Your task to perform on an android device: turn on notifications settings in the gmail app Image 0: 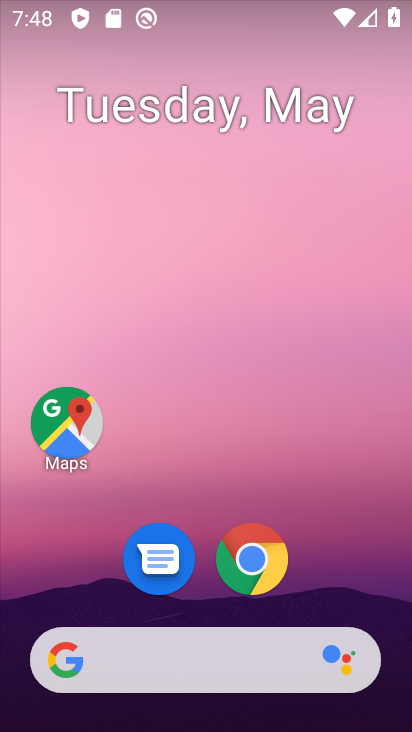
Step 0: drag from (381, 604) to (389, 157)
Your task to perform on an android device: turn on notifications settings in the gmail app Image 1: 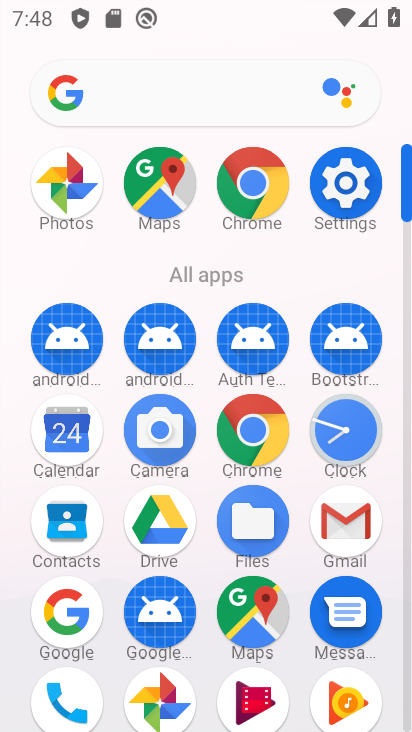
Step 1: click (361, 556)
Your task to perform on an android device: turn on notifications settings in the gmail app Image 2: 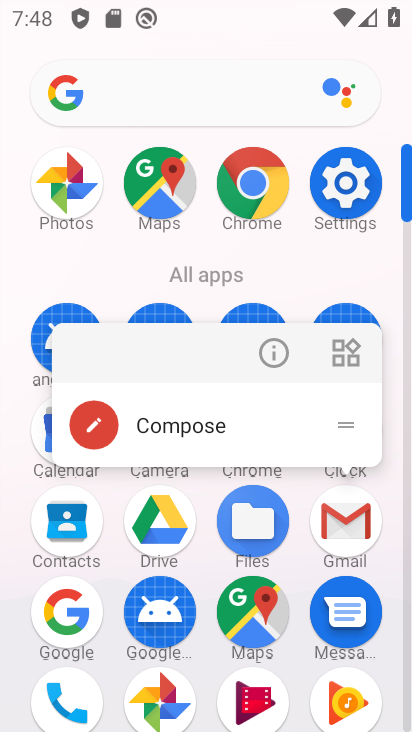
Step 2: click (361, 556)
Your task to perform on an android device: turn on notifications settings in the gmail app Image 3: 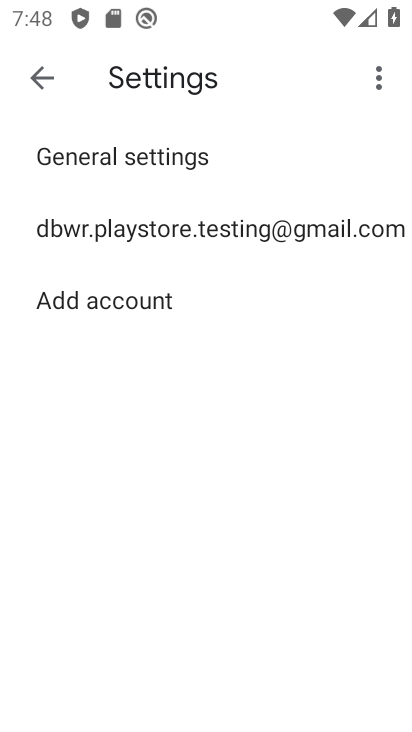
Step 3: click (222, 235)
Your task to perform on an android device: turn on notifications settings in the gmail app Image 4: 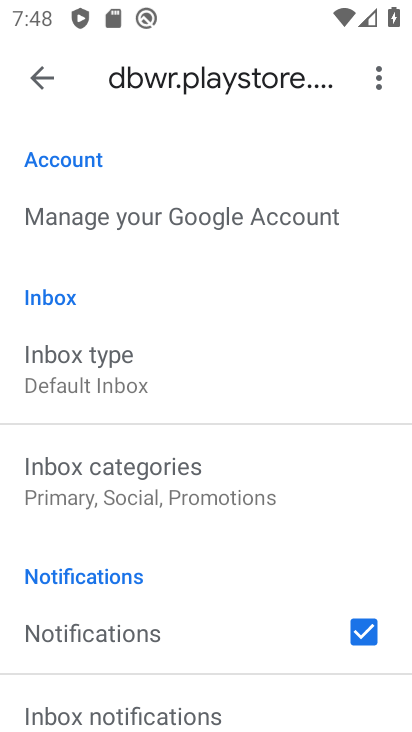
Step 4: drag from (295, 467) to (312, 395)
Your task to perform on an android device: turn on notifications settings in the gmail app Image 5: 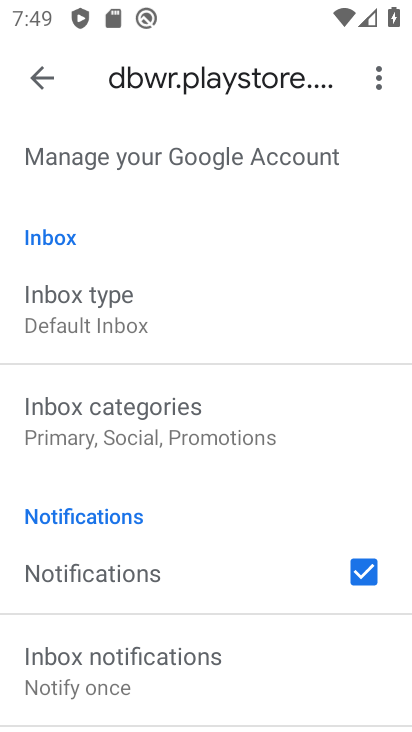
Step 5: drag from (298, 506) to (288, 380)
Your task to perform on an android device: turn on notifications settings in the gmail app Image 6: 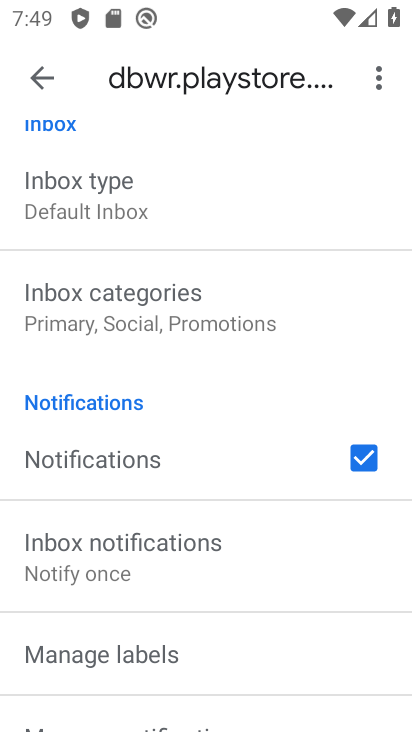
Step 6: drag from (306, 587) to (304, 468)
Your task to perform on an android device: turn on notifications settings in the gmail app Image 7: 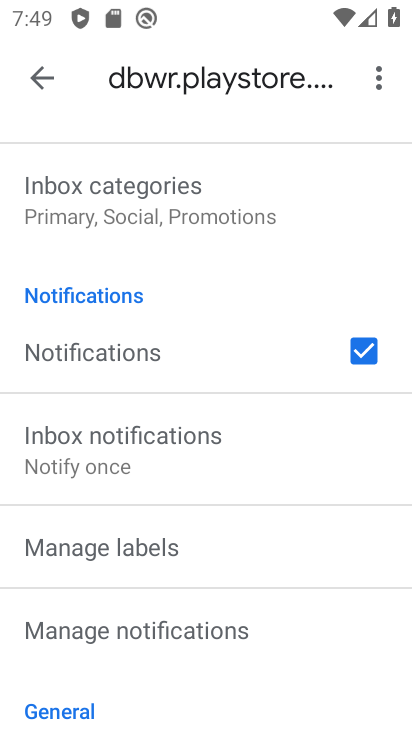
Step 7: drag from (338, 614) to (347, 511)
Your task to perform on an android device: turn on notifications settings in the gmail app Image 8: 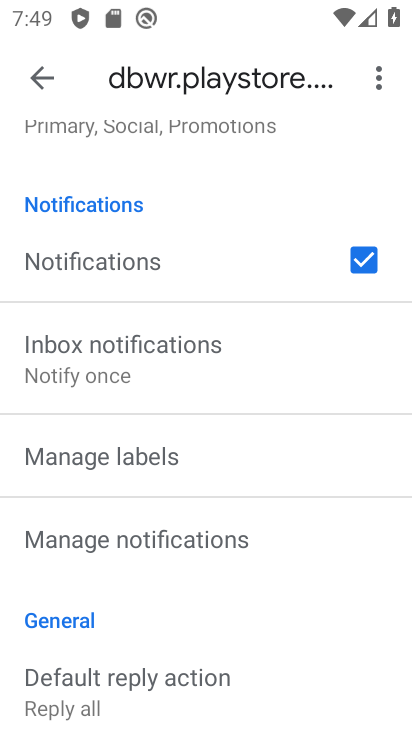
Step 8: drag from (359, 629) to (366, 535)
Your task to perform on an android device: turn on notifications settings in the gmail app Image 9: 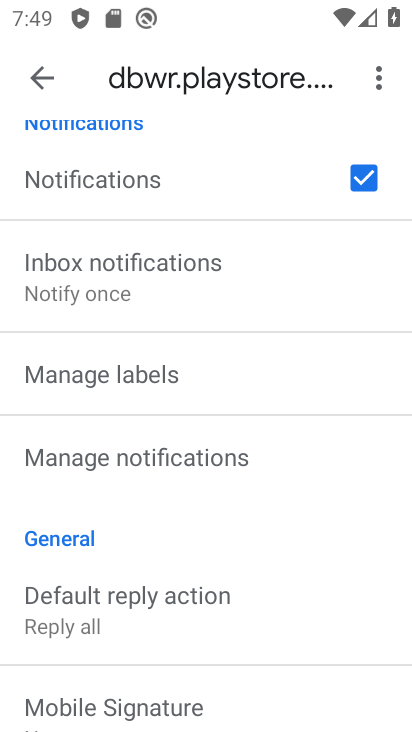
Step 9: drag from (352, 622) to (351, 517)
Your task to perform on an android device: turn on notifications settings in the gmail app Image 10: 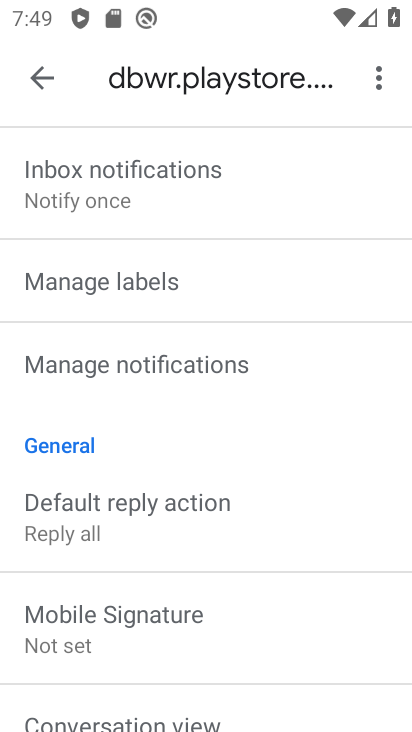
Step 10: drag from (368, 611) to (376, 527)
Your task to perform on an android device: turn on notifications settings in the gmail app Image 11: 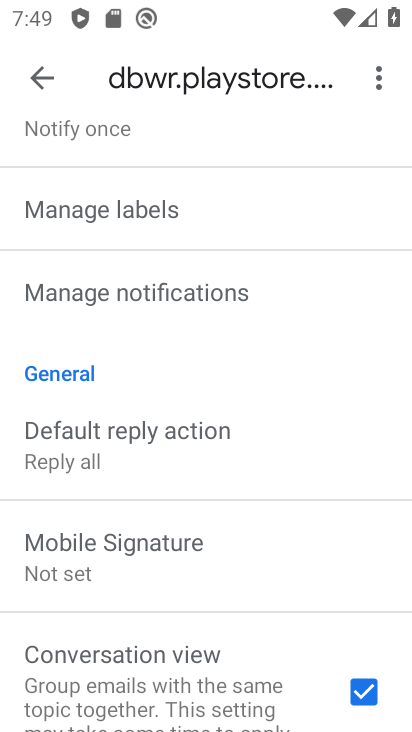
Step 11: drag from (357, 595) to (344, 513)
Your task to perform on an android device: turn on notifications settings in the gmail app Image 12: 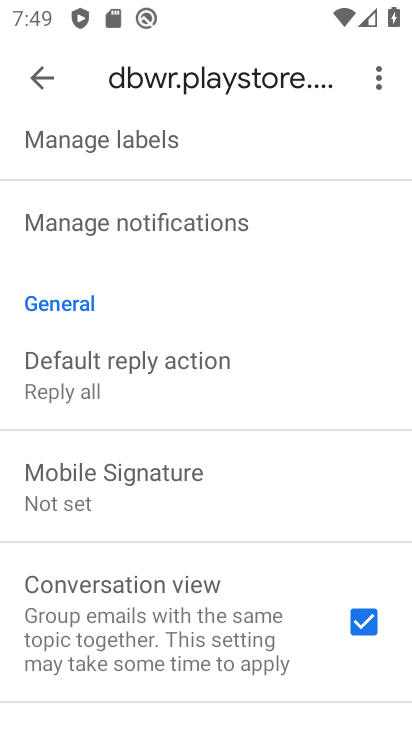
Step 12: drag from (333, 572) to (342, 484)
Your task to perform on an android device: turn on notifications settings in the gmail app Image 13: 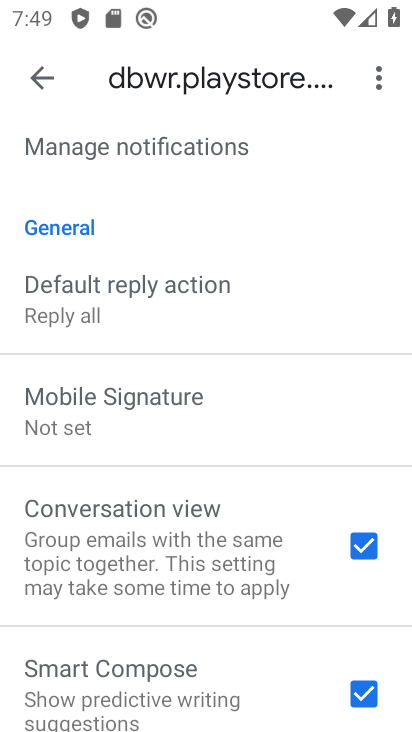
Step 13: drag from (322, 609) to (311, 526)
Your task to perform on an android device: turn on notifications settings in the gmail app Image 14: 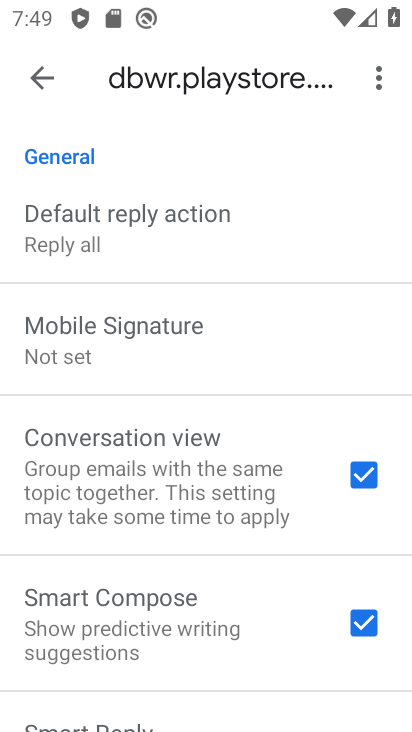
Step 14: drag from (293, 644) to (296, 537)
Your task to perform on an android device: turn on notifications settings in the gmail app Image 15: 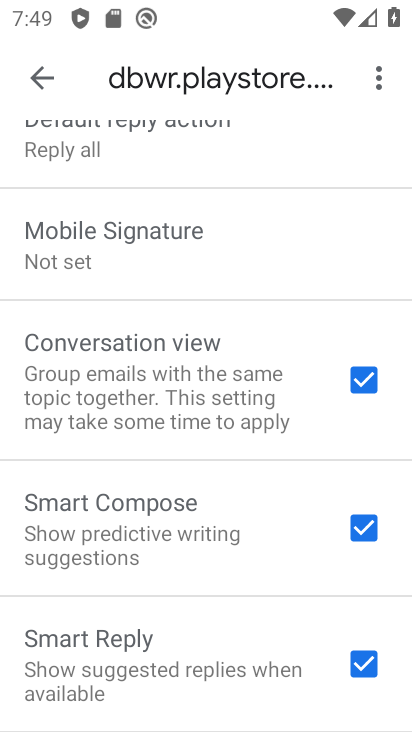
Step 15: drag from (302, 647) to (295, 473)
Your task to perform on an android device: turn on notifications settings in the gmail app Image 16: 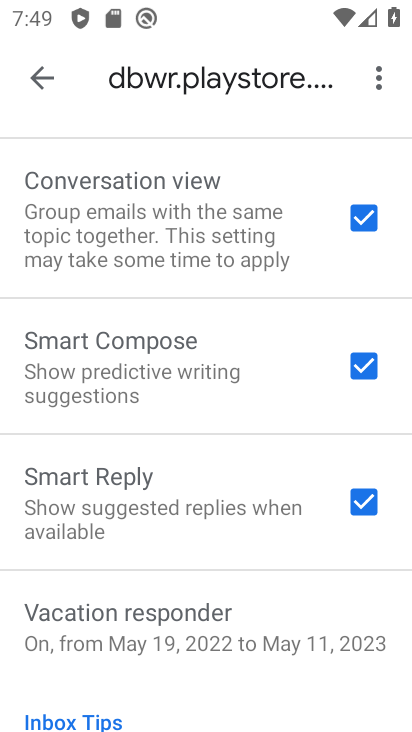
Step 16: drag from (307, 312) to (285, 480)
Your task to perform on an android device: turn on notifications settings in the gmail app Image 17: 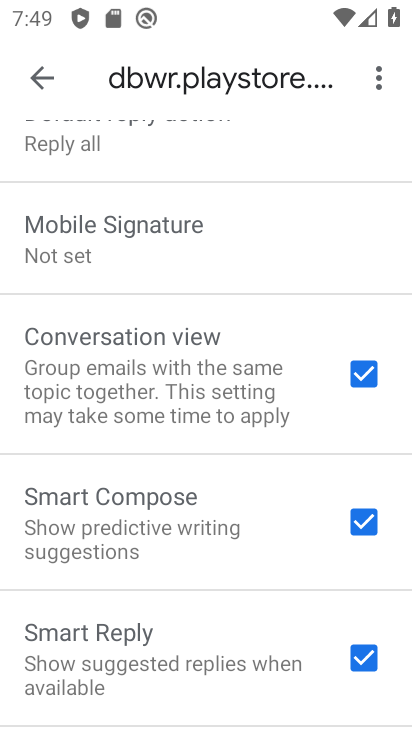
Step 17: drag from (284, 269) to (265, 391)
Your task to perform on an android device: turn on notifications settings in the gmail app Image 18: 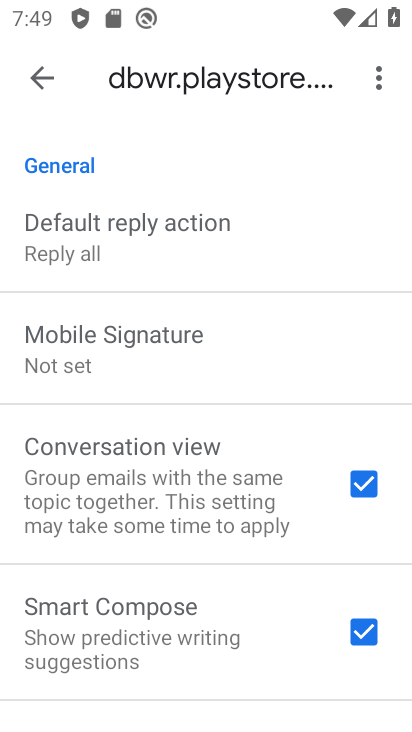
Step 18: drag from (275, 276) to (296, 432)
Your task to perform on an android device: turn on notifications settings in the gmail app Image 19: 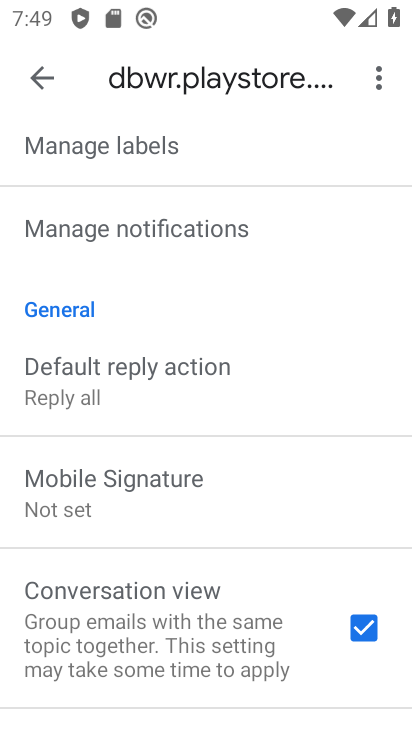
Step 19: click (254, 233)
Your task to perform on an android device: turn on notifications settings in the gmail app Image 20: 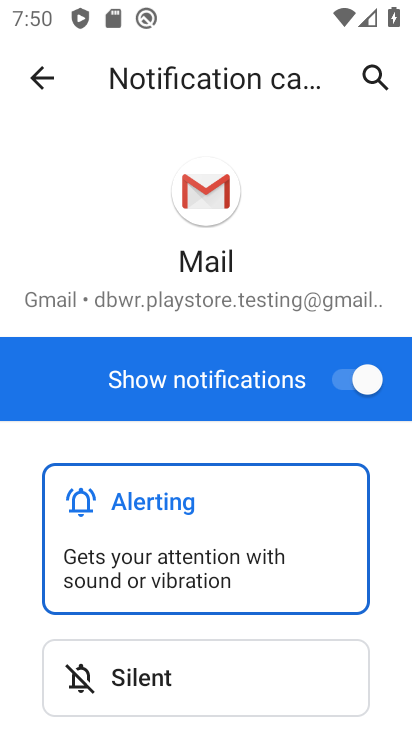
Step 20: press home button
Your task to perform on an android device: turn on notifications settings in the gmail app Image 21: 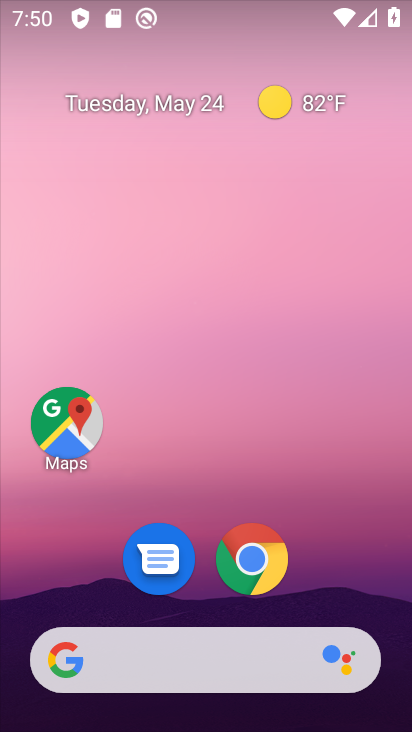
Step 21: drag from (387, 604) to (379, 183)
Your task to perform on an android device: turn on notifications settings in the gmail app Image 22: 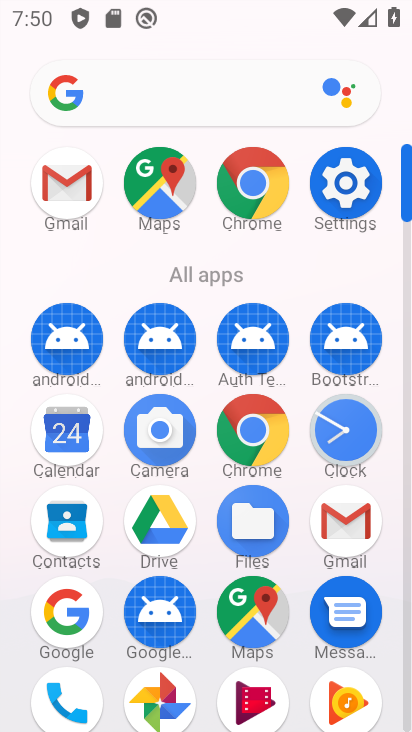
Step 22: click (354, 530)
Your task to perform on an android device: turn on notifications settings in the gmail app Image 23: 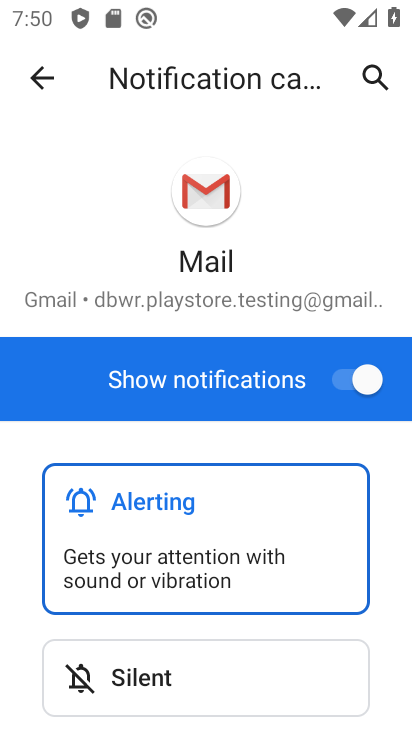
Step 23: task complete